Your task to perform on an android device: change alarm snooze length Image 0: 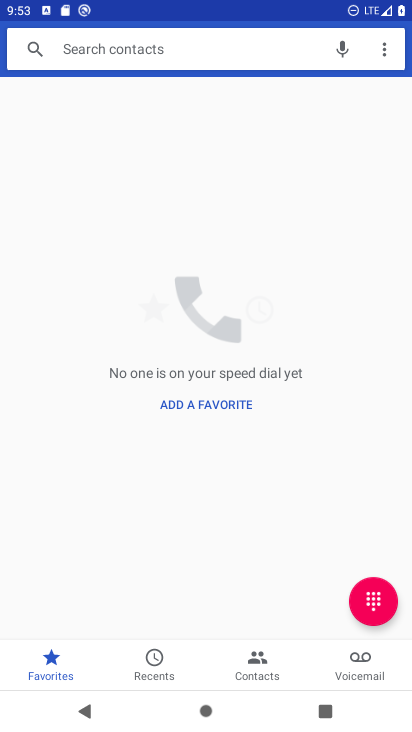
Step 0: press home button
Your task to perform on an android device: change alarm snooze length Image 1: 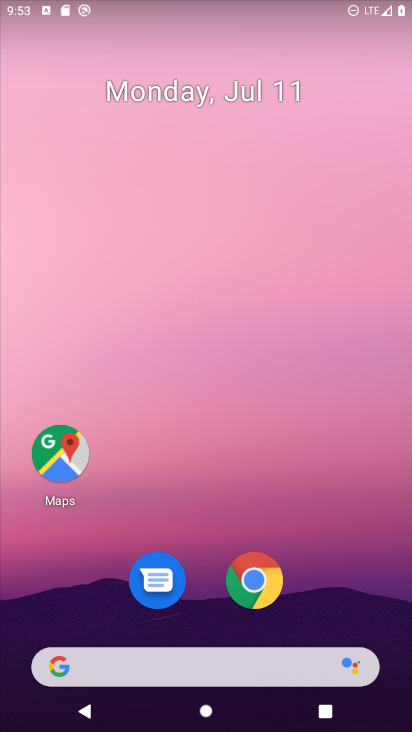
Step 1: drag from (293, 509) to (301, 31)
Your task to perform on an android device: change alarm snooze length Image 2: 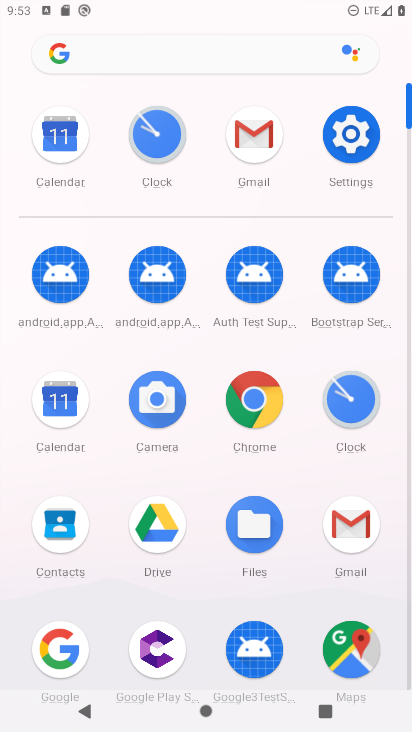
Step 2: click (151, 140)
Your task to perform on an android device: change alarm snooze length Image 3: 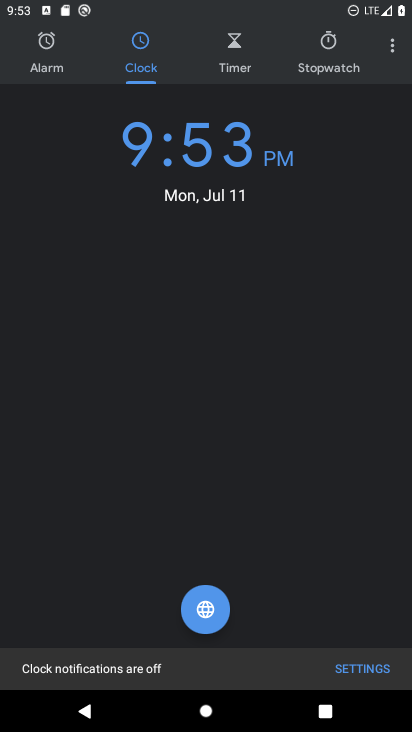
Step 3: click (397, 53)
Your task to perform on an android device: change alarm snooze length Image 4: 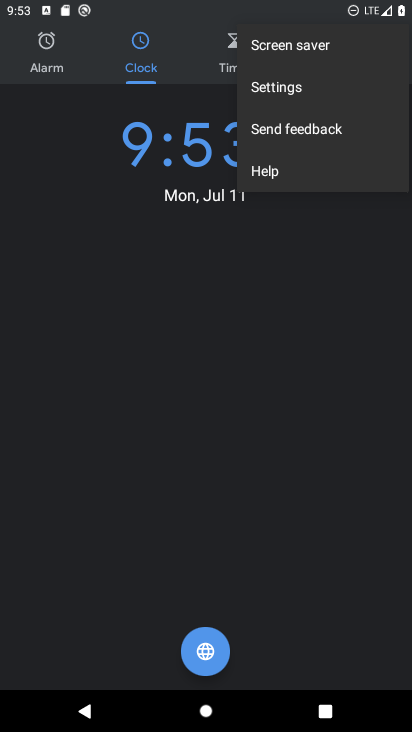
Step 4: click (303, 89)
Your task to perform on an android device: change alarm snooze length Image 5: 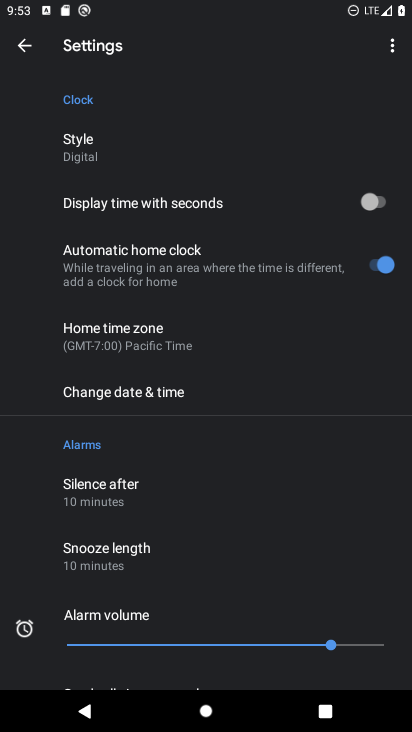
Step 5: click (141, 562)
Your task to perform on an android device: change alarm snooze length Image 6: 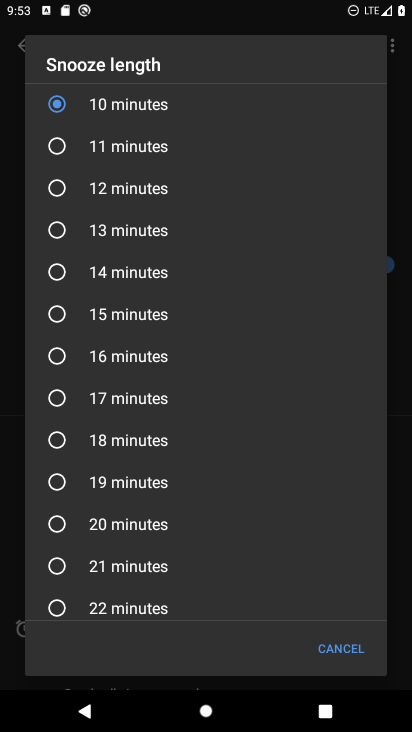
Step 6: click (60, 178)
Your task to perform on an android device: change alarm snooze length Image 7: 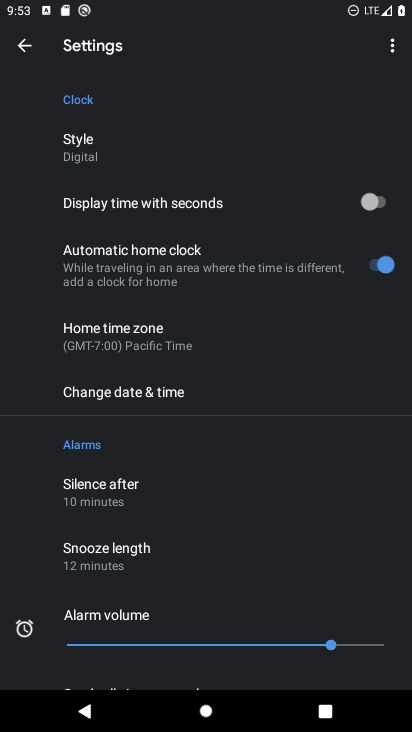
Step 7: task complete